Your task to perform on an android device: toggle pop-ups in chrome Image 0: 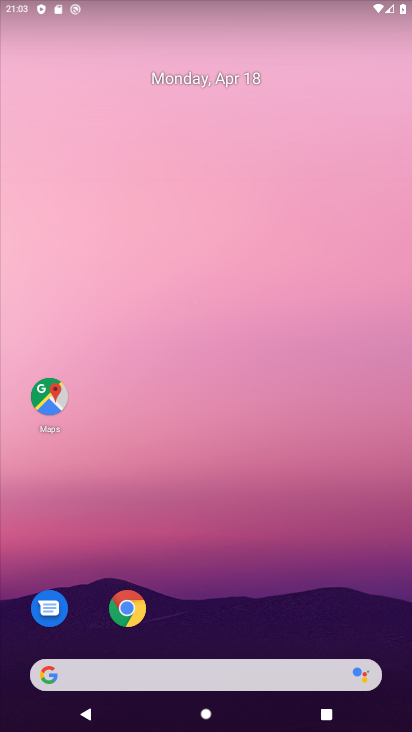
Step 0: drag from (232, 575) to (232, 196)
Your task to perform on an android device: toggle pop-ups in chrome Image 1: 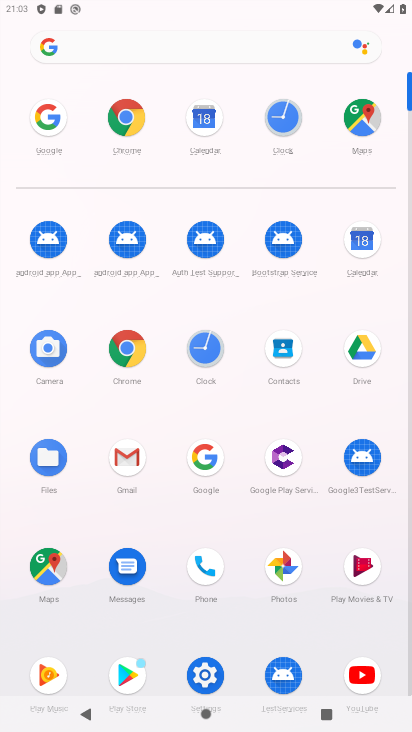
Step 1: click (122, 117)
Your task to perform on an android device: toggle pop-ups in chrome Image 2: 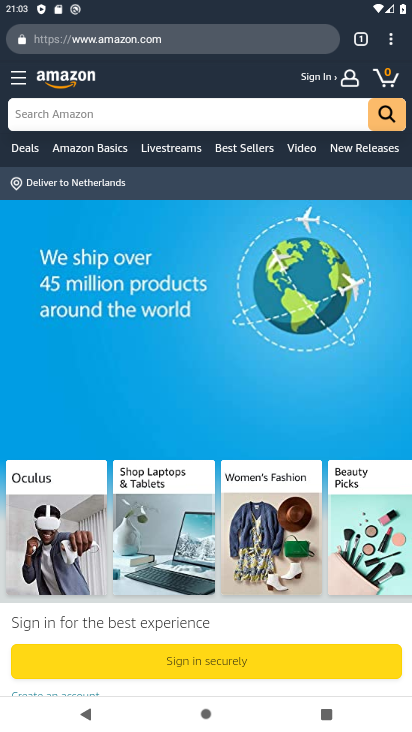
Step 2: click (387, 42)
Your task to perform on an android device: toggle pop-ups in chrome Image 3: 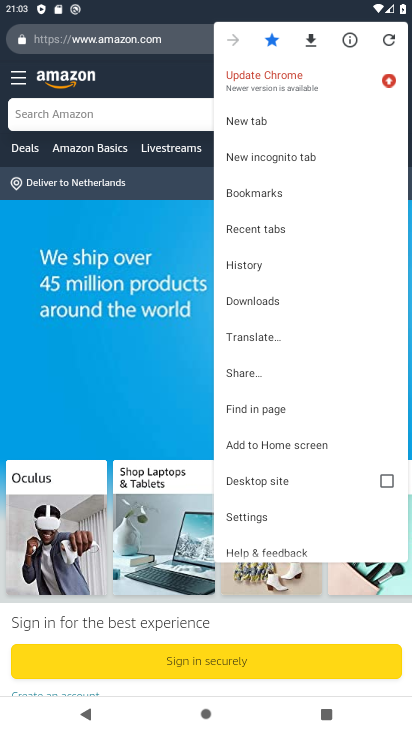
Step 3: click (258, 519)
Your task to perform on an android device: toggle pop-ups in chrome Image 4: 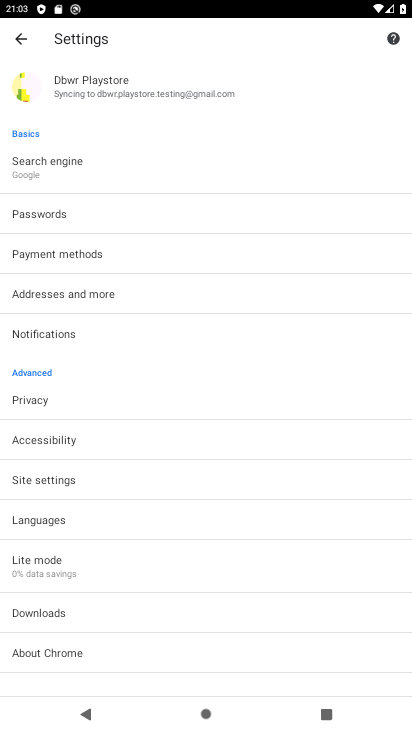
Step 4: click (82, 484)
Your task to perform on an android device: toggle pop-ups in chrome Image 5: 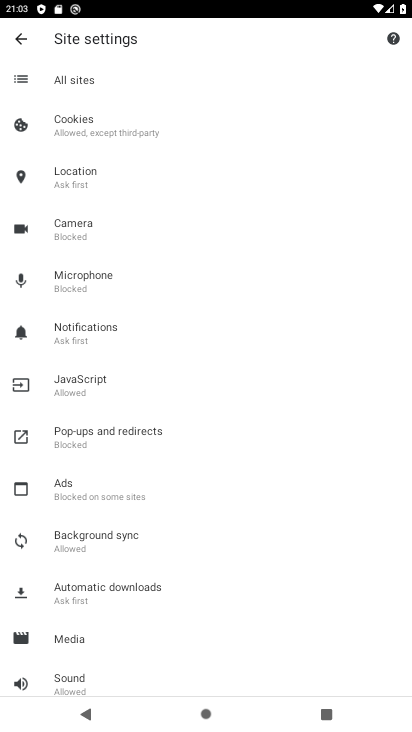
Step 5: click (103, 442)
Your task to perform on an android device: toggle pop-ups in chrome Image 6: 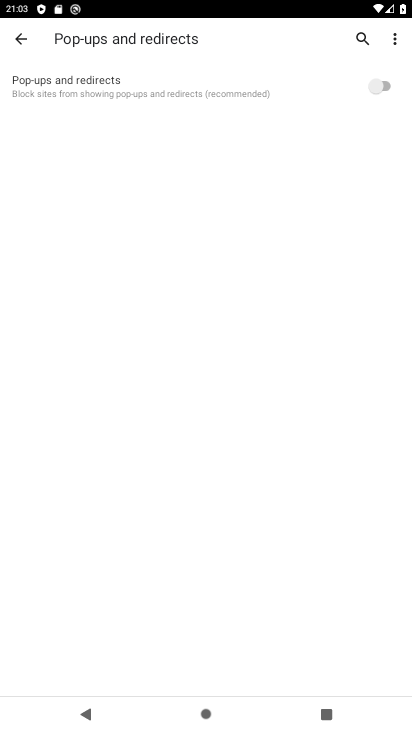
Step 6: click (385, 81)
Your task to perform on an android device: toggle pop-ups in chrome Image 7: 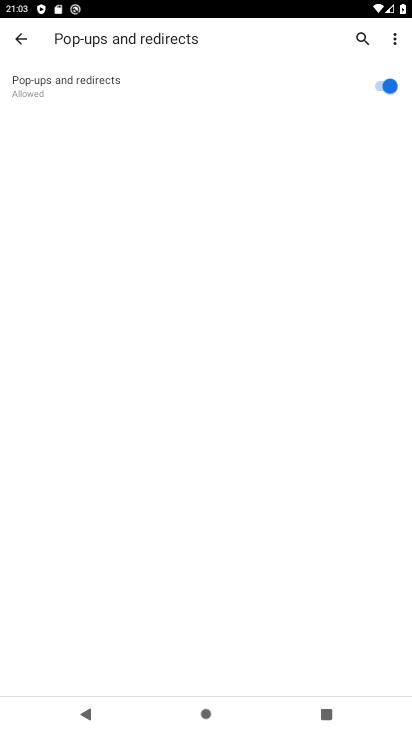
Step 7: task complete